Your task to perform on an android device: uninstall "Adobe Express: Graphic Design" Image 0: 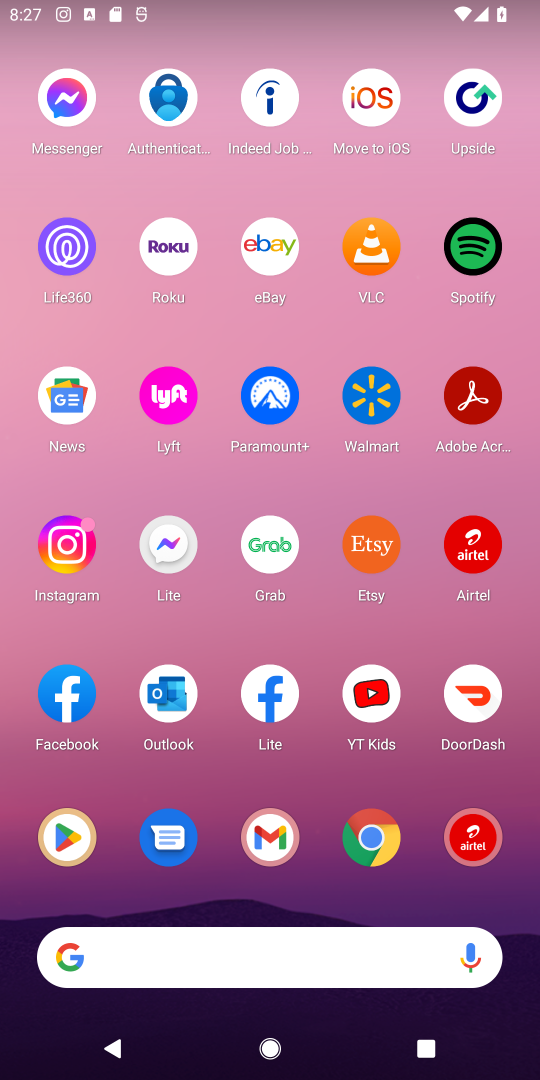
Step 0: click (72, 854)
Your task to perform on an android device: uninstall "Adobe Express: Graphic Design" Image 1: 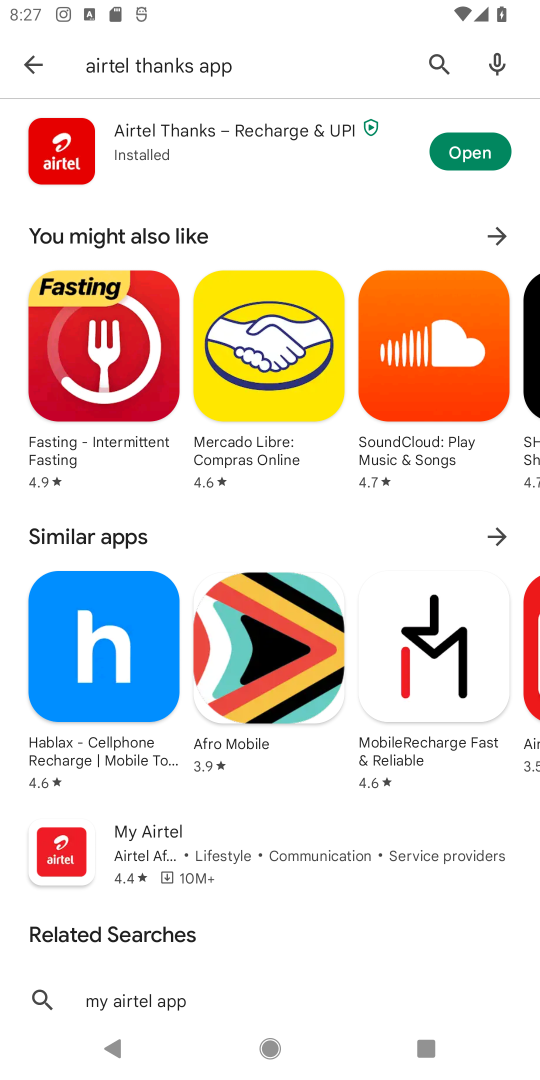
Step 1: click (434, 69)
Your task to perform on an android device: uninstall "Adobe Express: Graphic Design" Image 2: 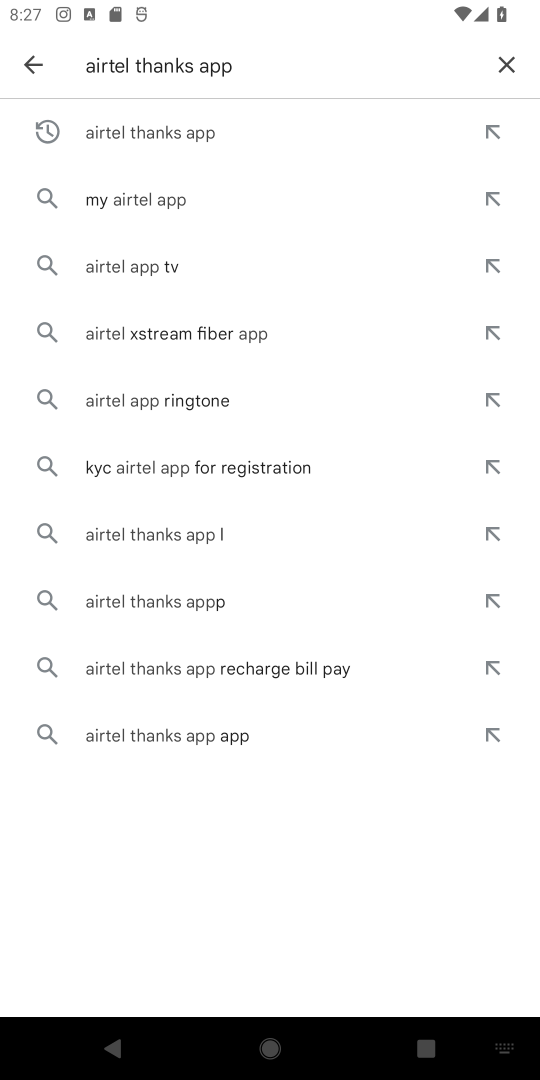
Step 2: click (510, 66)
Your task to perform on an android device: uninstall "Adobe Express: Graphic Design" Image 3: 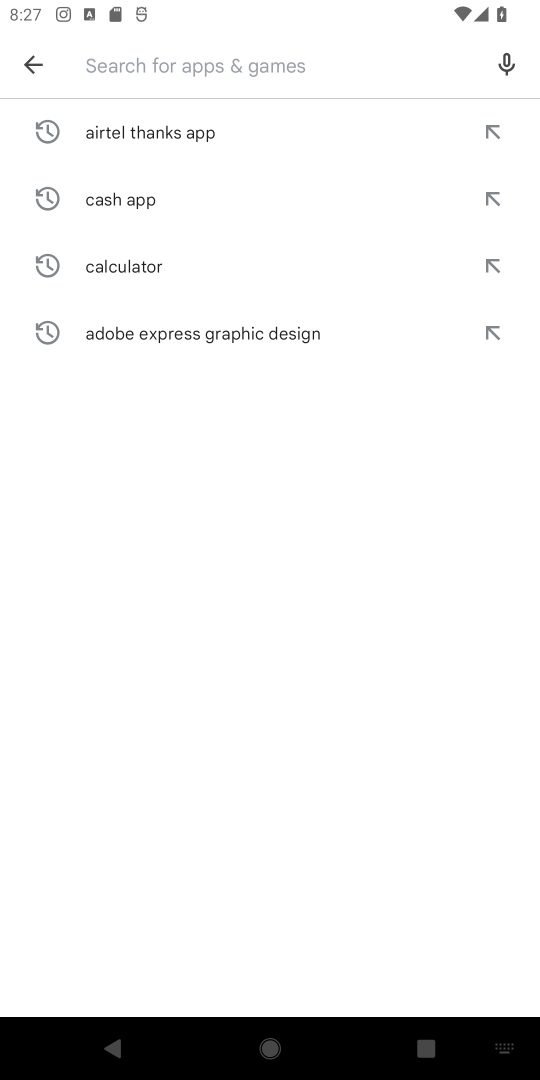
Step 3: type "Adobe Express: Graphic Design"
Your task to perform on an android device: uninstall "Adobe Express: Graphic Design" Image 4: 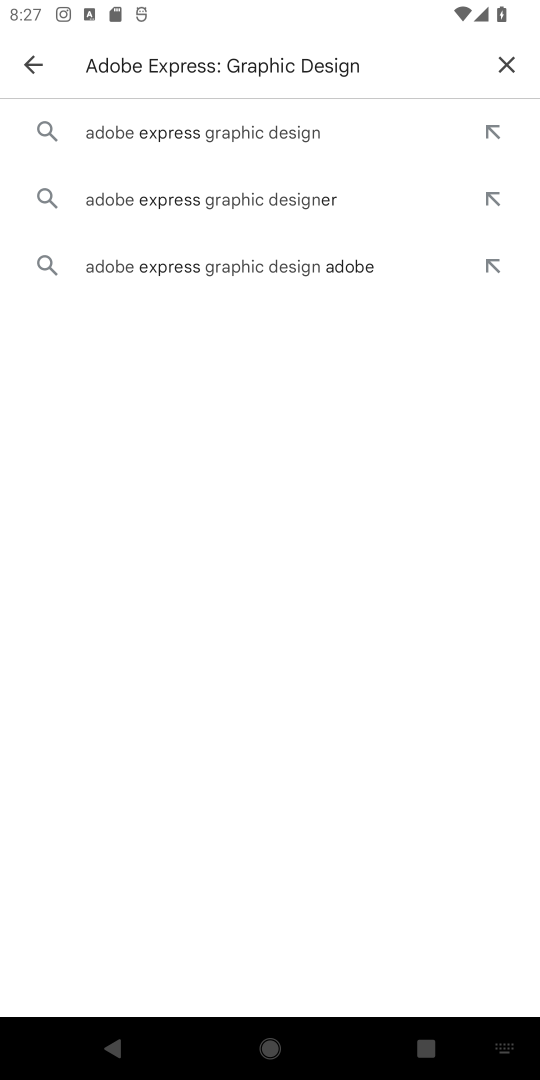
Step 4: click (179, 146)
Your task to perform on an android device: uninstall "Adobe Express: Graphic Design" Image 5: 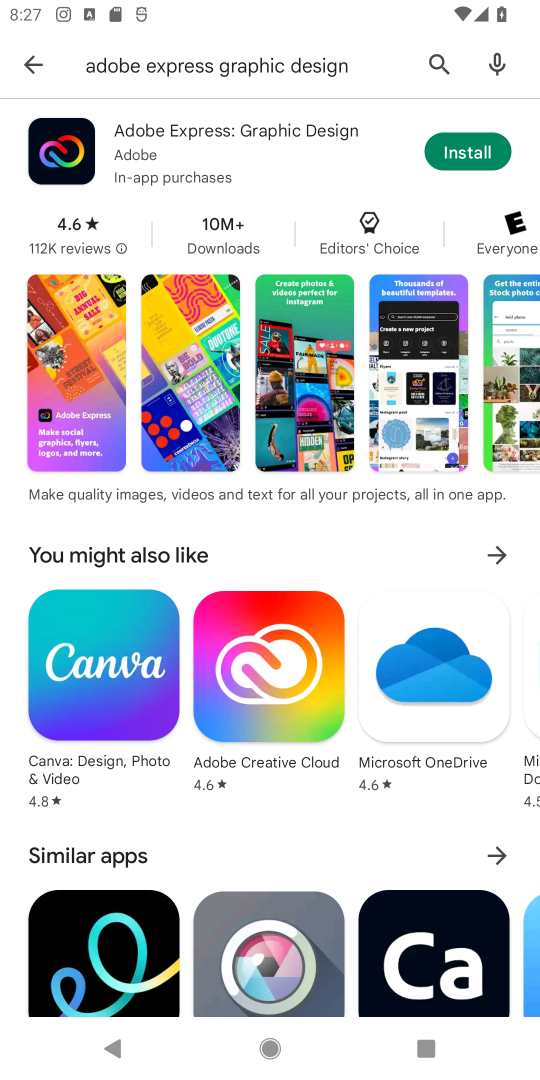
Step 5: task complete